Your task to perform on an android device: Open maps Image 0: 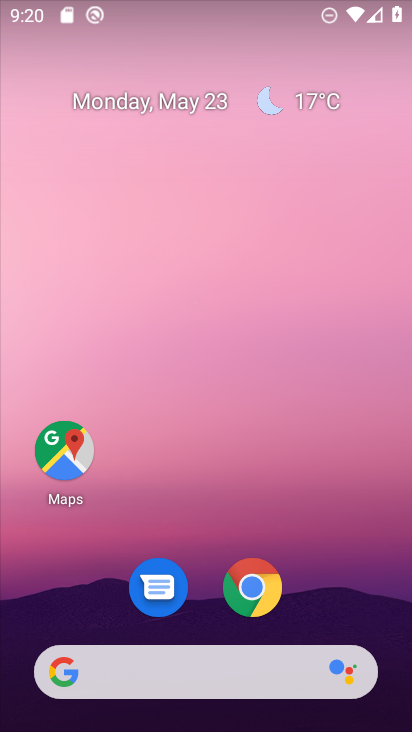
Step 0: click (58, 438)
Your task to perform on an android device: Open maps Image 1: 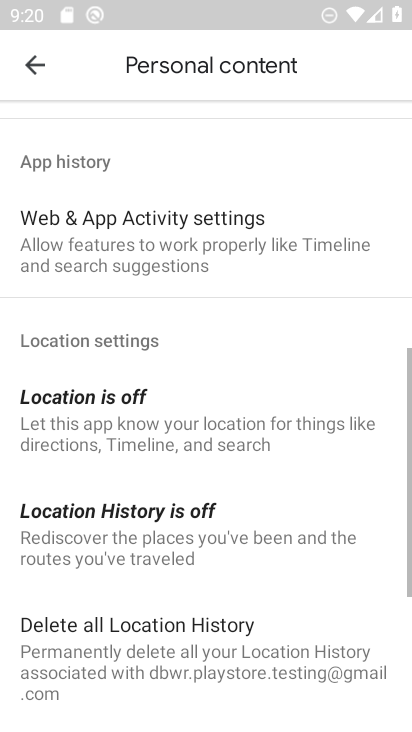
Step 1: task complete